Your task to perform on an android device: Open Reddit.com Image 0: 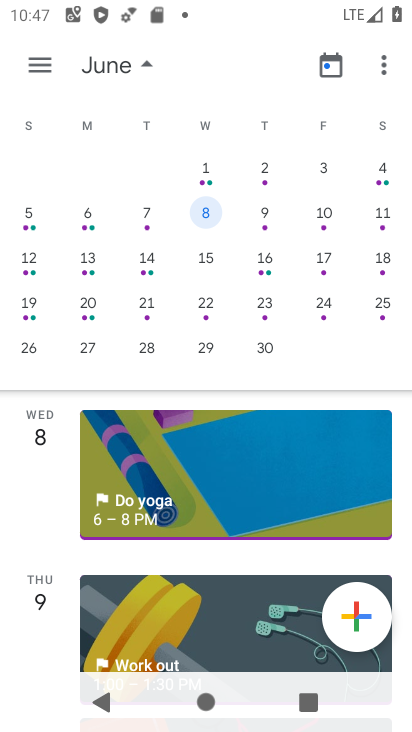
Step 0: press home button
Your task to perform on an android device: Open Reddit.com Image 1: 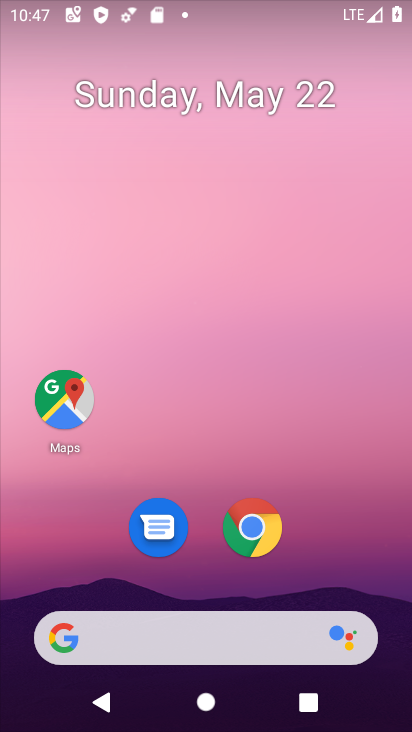
Step 1: click (265, 529)
Your task to perform on an android device: Open Reddit.com Image 2: 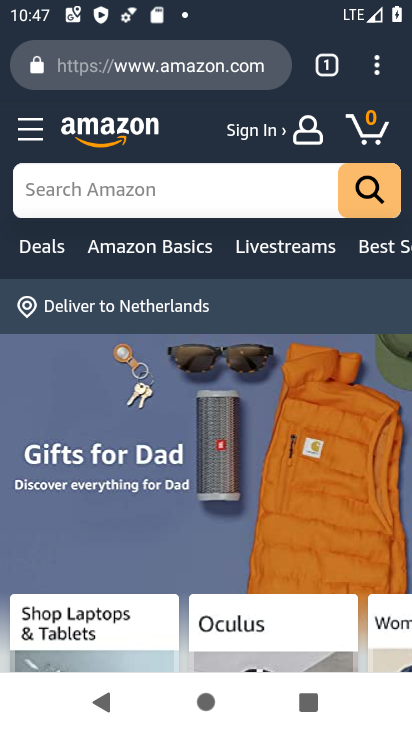
Step 2: click (232, 81)
Your task to perform on an android device: Open Reddit.com Image 3: 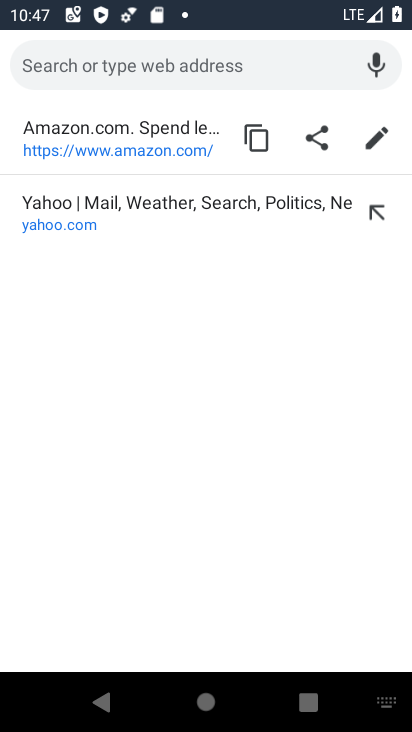
Step 3: type "reddit.com"
Your task to perform on an android device: Open Reddit.com Image 4: 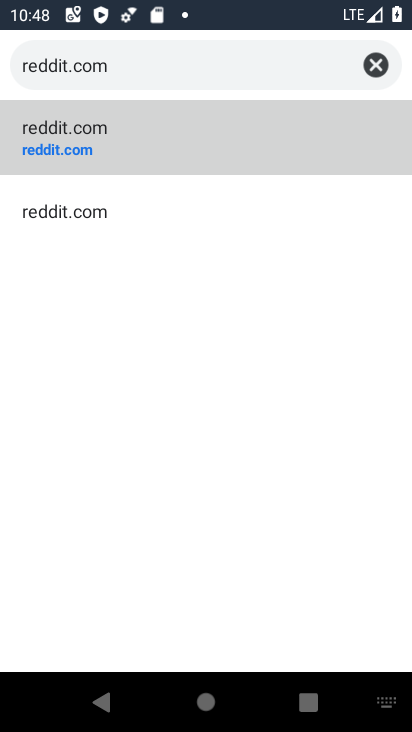
Step 4: click (202, 157)
Your task to perform on an android device: Open Reddit.com Image 5: 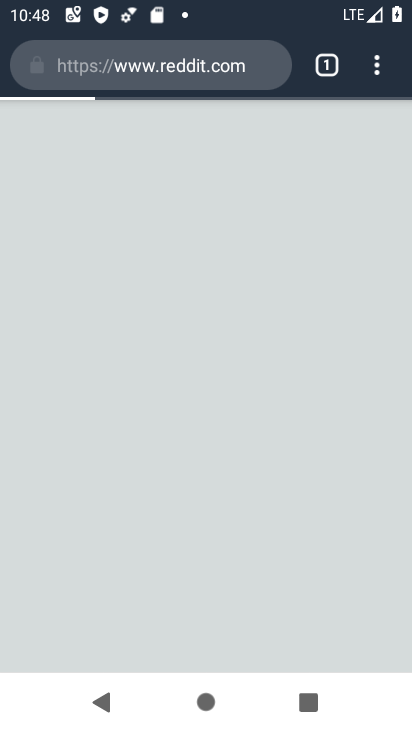
Step 5: task complete